Your task to perform on an android device: open a new tab in the chrome app Image 0: 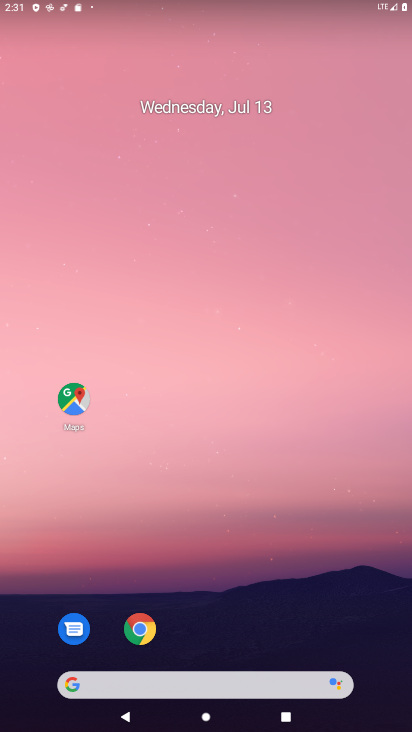
Step 0: click (134, 633)
Your task to perform on an android device: open a new tab in the chrome app Image 1: 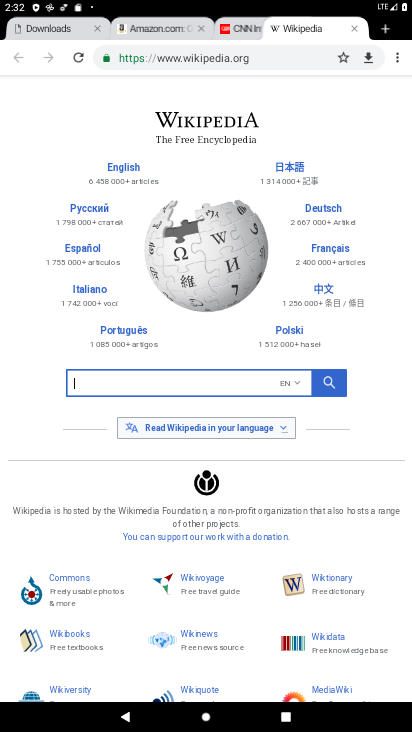
Step 1: click (395, 50)
Your task to perform on an android device: open a new tab in the chrome app Image 2: 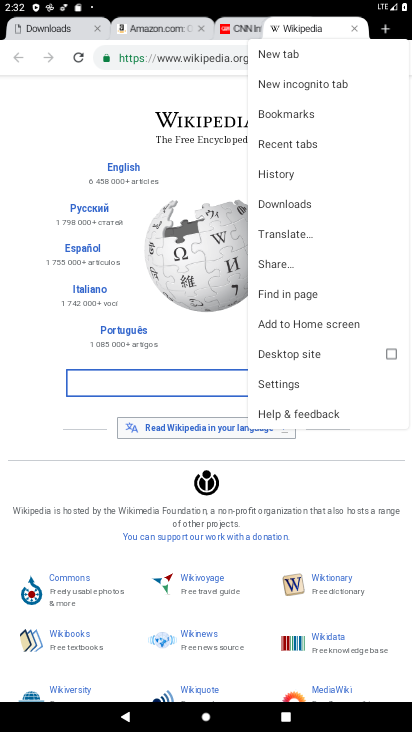
Step 2: click (297, 55)
Your task to perform on an android device: open a new tab in the chrome app Image 3: 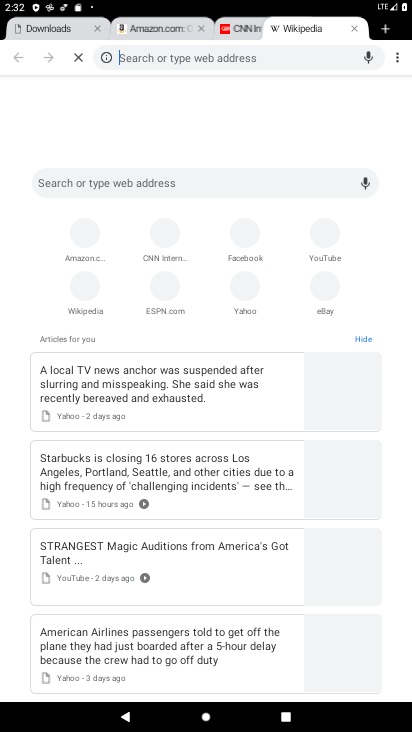
Step 3: task complete